Your task to perform on an android device: check android version Image 0: 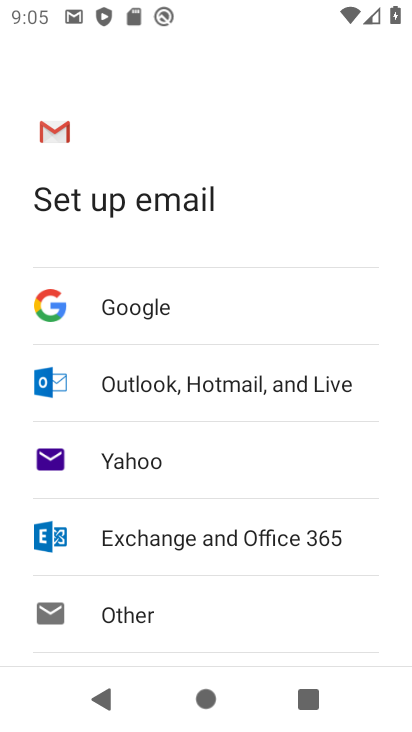
Step 0: press home button
Your task to perform on an android device: check android version Image 1: 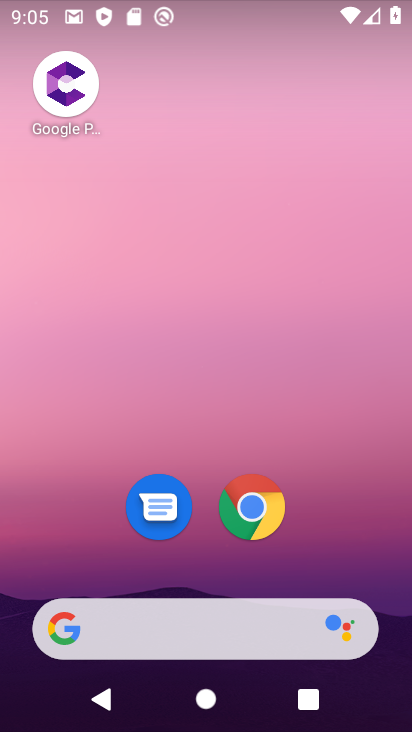
Step 1: drag from (203, 592) to (283, 304)
Your task to perform on an android device: check android version Image 2: 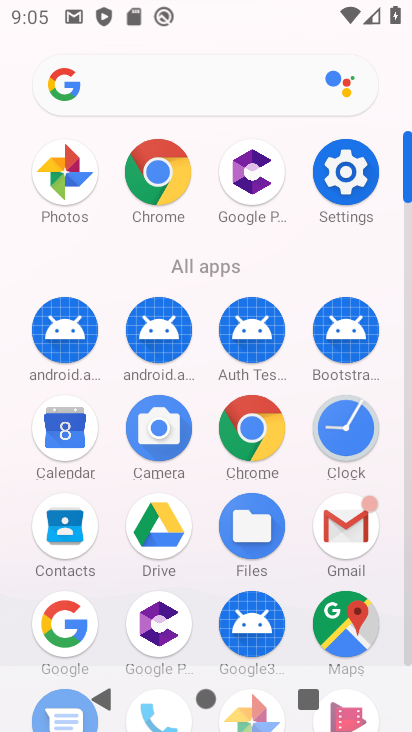
Step 2: click (349, 169)
Your task to perform on an android device: check android version Image 3: 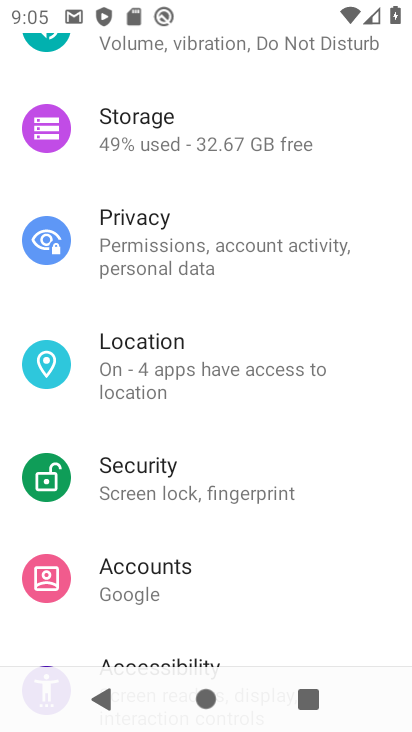
Step 3: drag from (302, 632) to (363, 363)
Your task to perform on an android device: check android version Image 4: 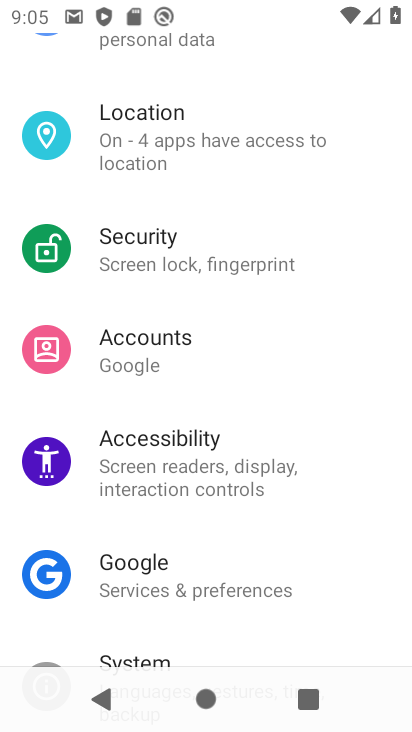
Step 4: drag from (277, 595) to (353, 277)
Your task to perform on an android device: check android version Image 5: 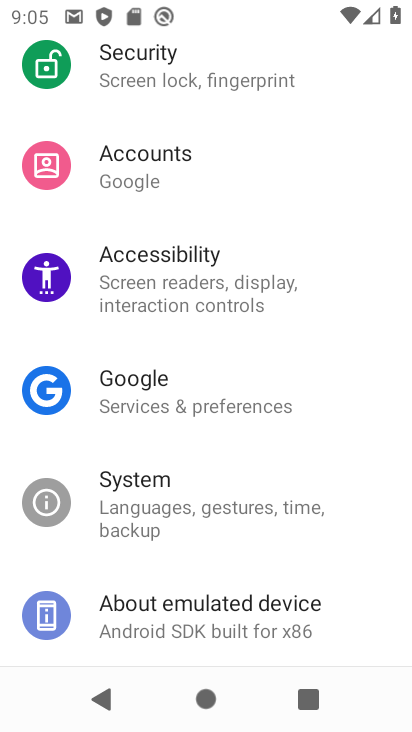
Step 5: click (282, 629)
Your task to perform on an android device: check android version Image 6: 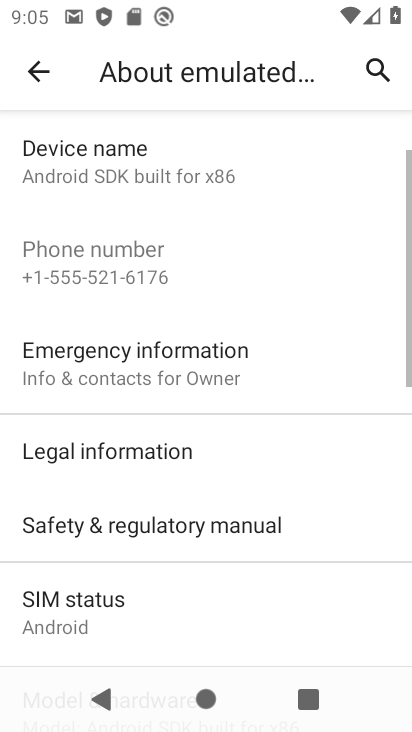
Step 6: drag from (217, 595) to (289, 318)
Your task to perform on an android device: check android version Image 7: 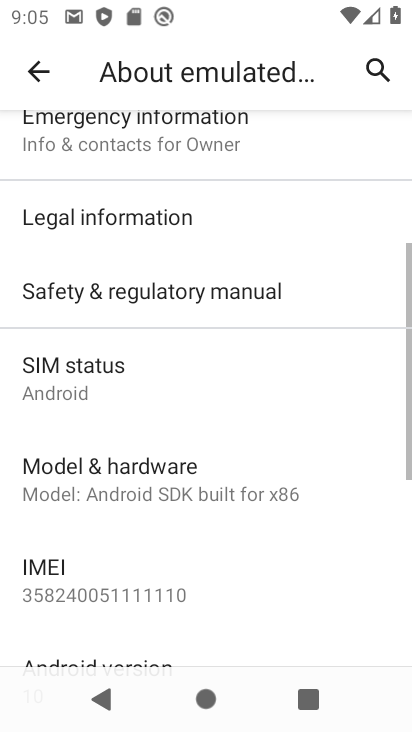
Step 7: drag from (302, 230) to (402, 57)
Your task to perform on an android device: check android version Image 8: 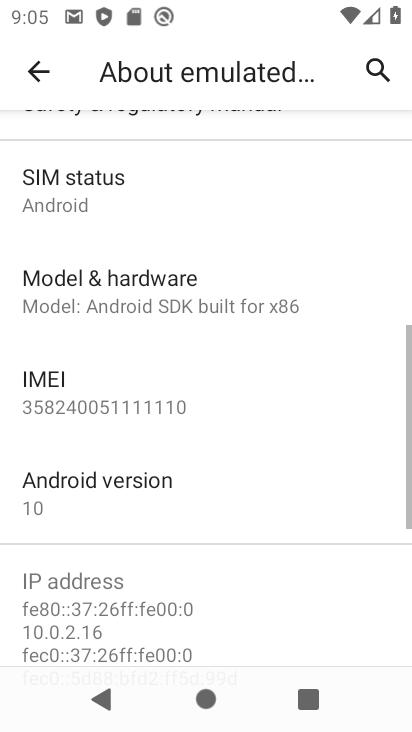
Step 8: click (204, 496)
Your task to perform on an android device: check android version Image 9: 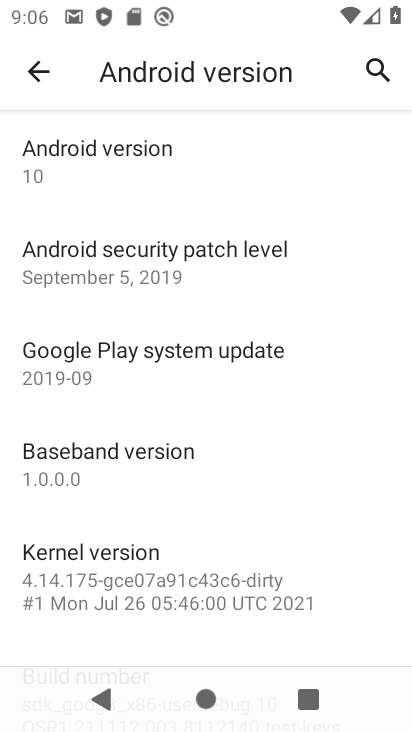
Step 9: task complete